Your task to perform on an android device: Open calendar and show me the fourth week of next month Image 0: 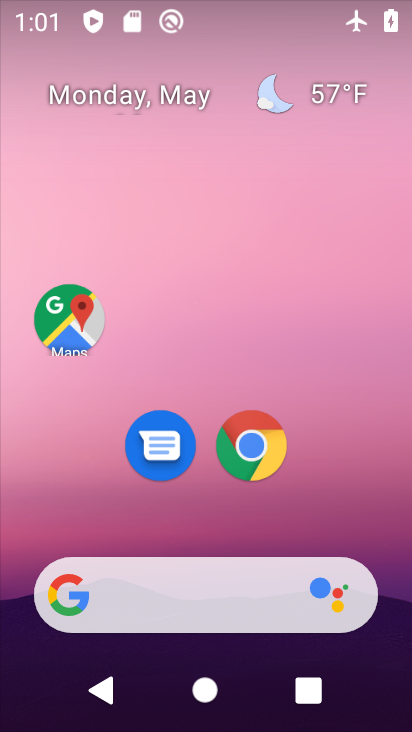
Step 0: drag from (401, 621) to (301, 104)
Your task to perform on an android device: Open calendar and show me the fourth week of next month Image 1: 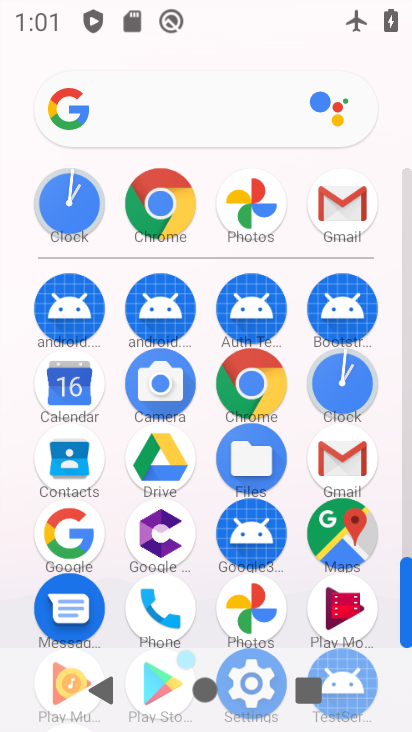
Step 1: click (76, 383)
Your task to perform on an android device: Open calendar and show me the fourth week of next month Image 2: 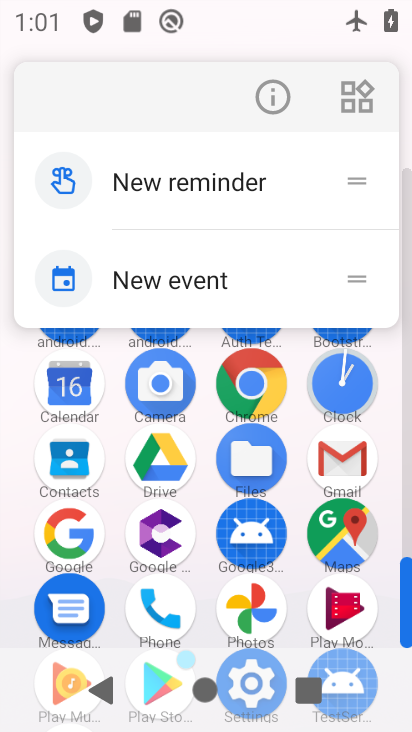
Step 2: click (76, 383)
Your task to perform on an android device: Open calendar and show me the fourth week of next month Image 3: 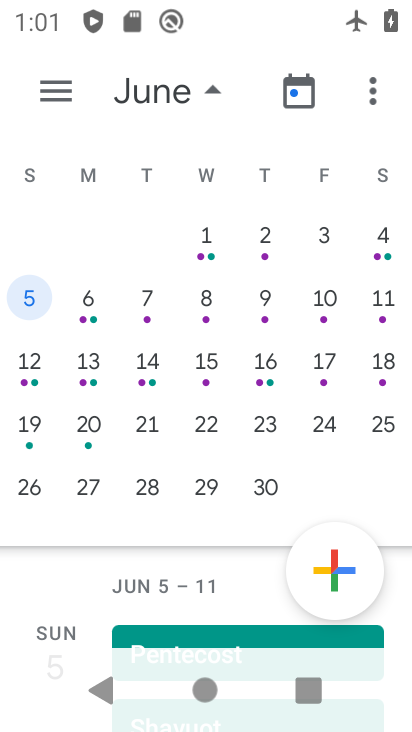
Step 3: drag from (385, 393) to (0, 353)
Your task to perform on an android device: Open calendar and show me the fourth week of next month Image 4: 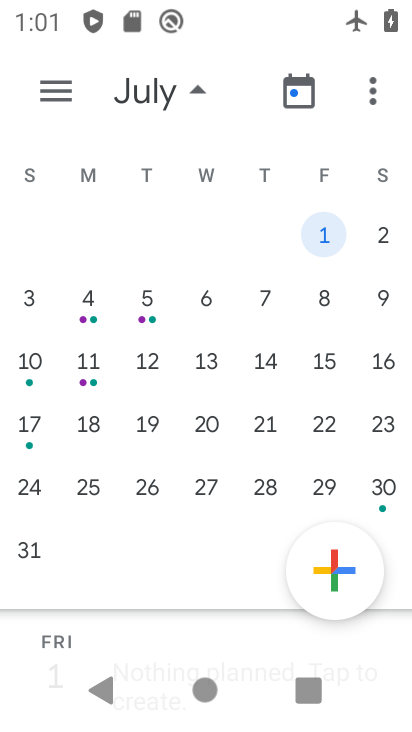
Step 4: click (386, 496)
Your task to perform on an android device: Open calendar and show me the fourth week of next month Image 5: 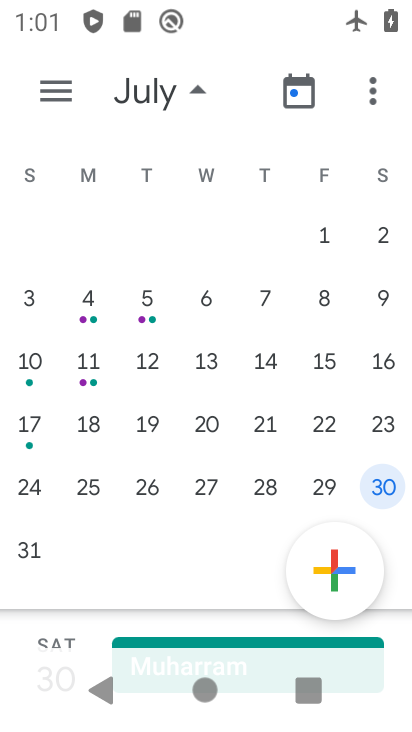
Step 5: task complete